Your task to perform on an android device: make emails show in primary in the gmail app Image 0: 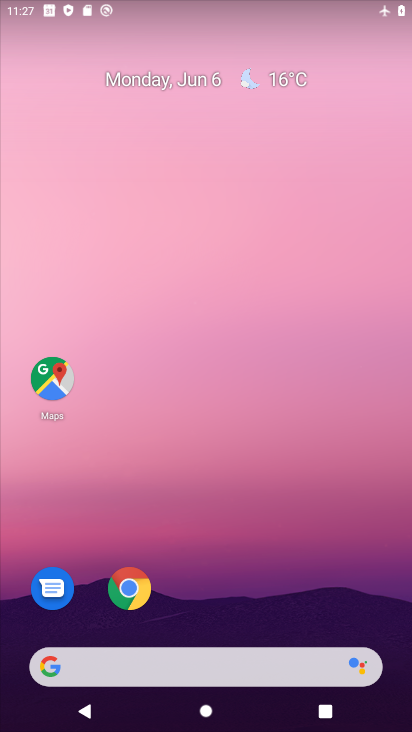
Step 0: drag from (308, 585) to (266, 5)
Your task to perform on an android device: make emails show in primary in the gmail app Image 1: 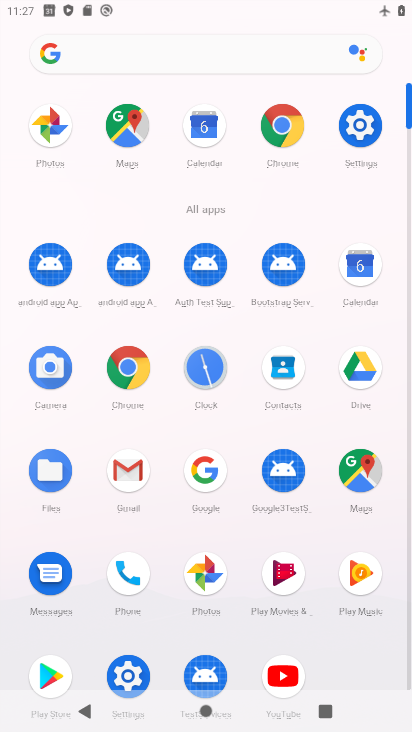
Step 1: click (123, 469)
Your task to perform on an android device: make emails show in primary in the gmail app Image 2: 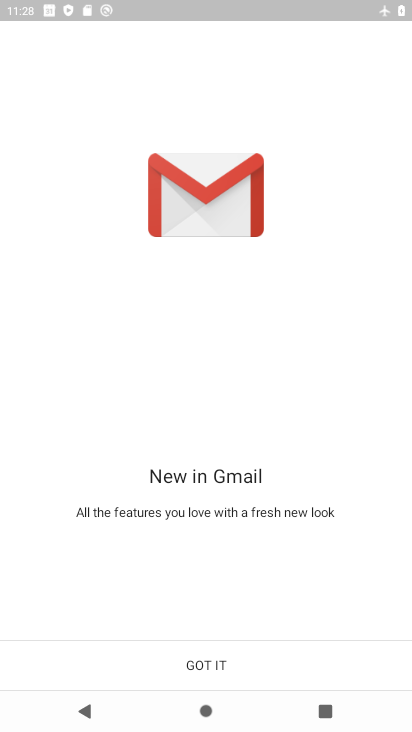
Step 2: click (205, 666)
Your task to perform on an android device: make emails show in primary in the gmail app Image 3: 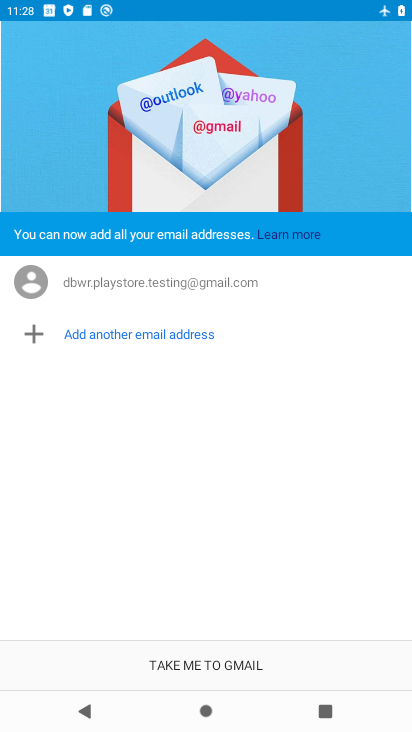
Step 3: click (205, 666)
Your task to perform on an android device: make emails show in primary in the gmail app Image 4: 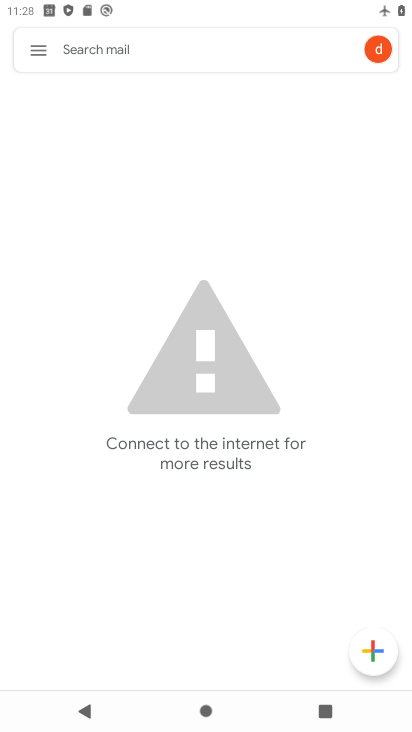
Step 4: click (39, 49)
Your task to perform on an android device: make emails show in primary in the gmail app Image 5: 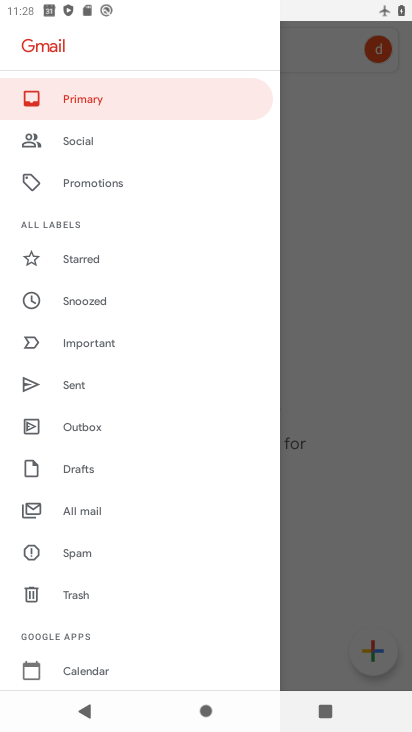
Step 5: click (128, 105)
Your task to perform on an android device: make emails show in primary in the gmail app Image 6: 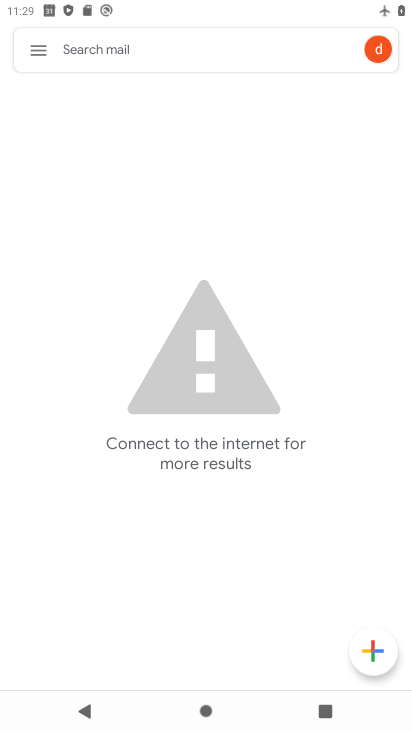
Step 6: task complete